Your task to perform on an android device: Show me recent news Image 0: 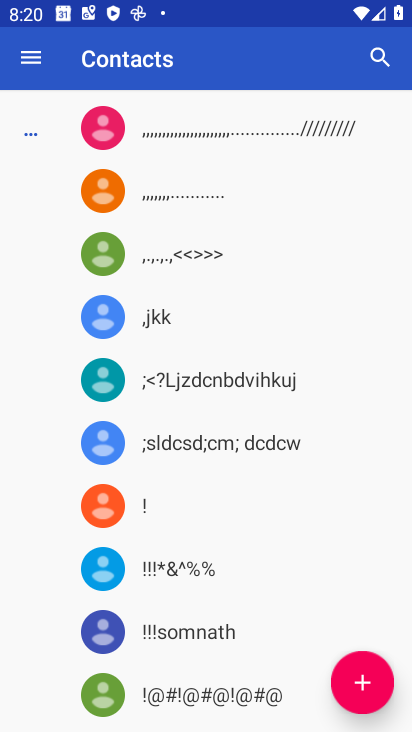
Step 0: press home button
Your task to perform on an android device: Show me recent news Image 1: 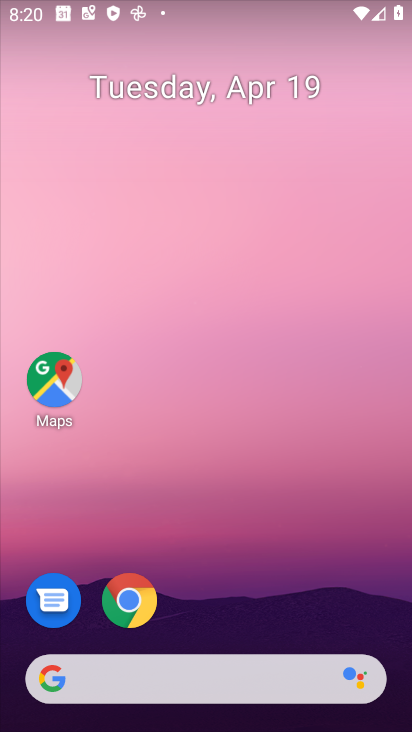
Step 1: drag from (285, 611) to (218, 56)
Your task to perform on an android device: Show me recent news Image 2: 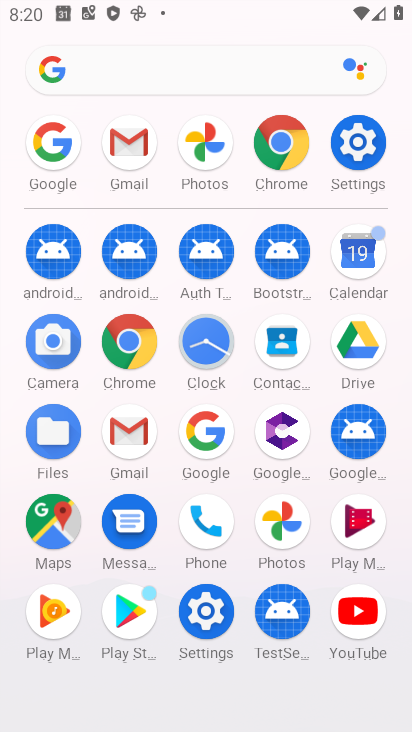
Step 2: click (125, 347)
Your task to perform on an android device: Show me recent news Image 3: 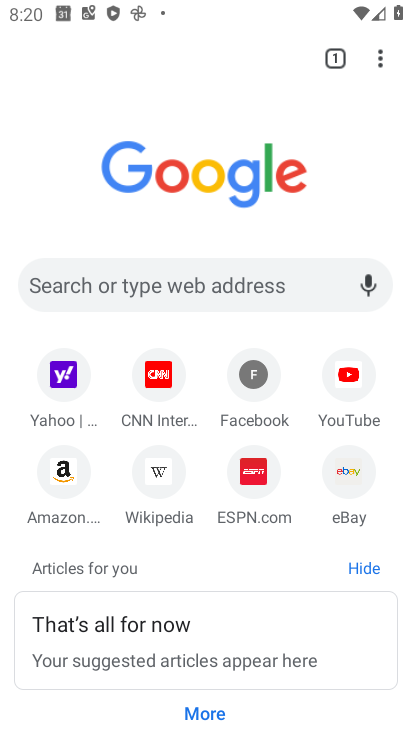
Step 3: click (184, 701)
Your task to perform on an android device: Show me recent news Image 4: 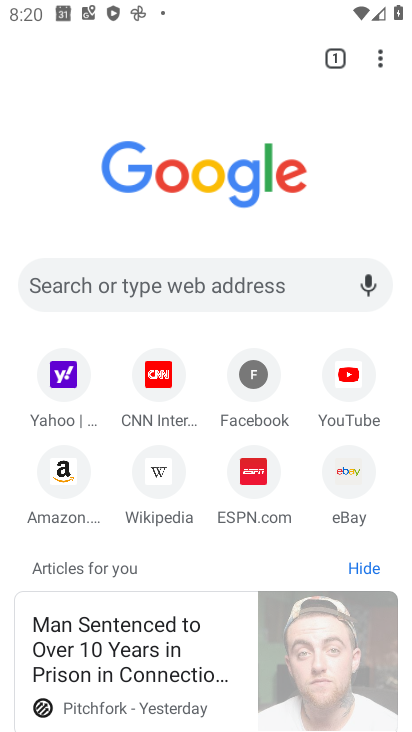
Step 4: drag from (145, 655) to (205, 232)
Your task to perform on an android device: Show me recent news Image 5: 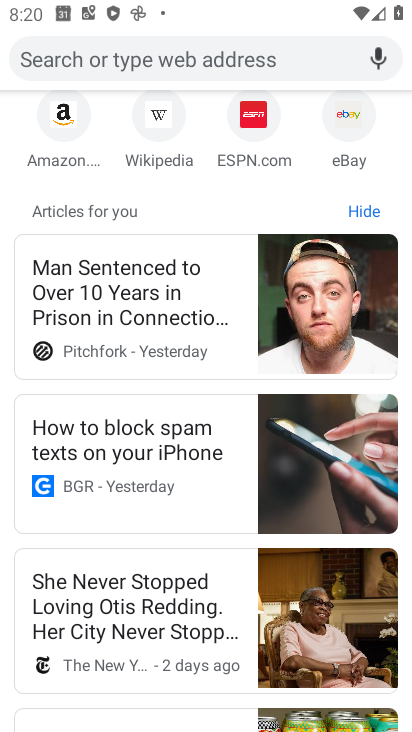
Step 5: click (173, 292)
Your task to perform on an android device: Show me recent news Image 6: 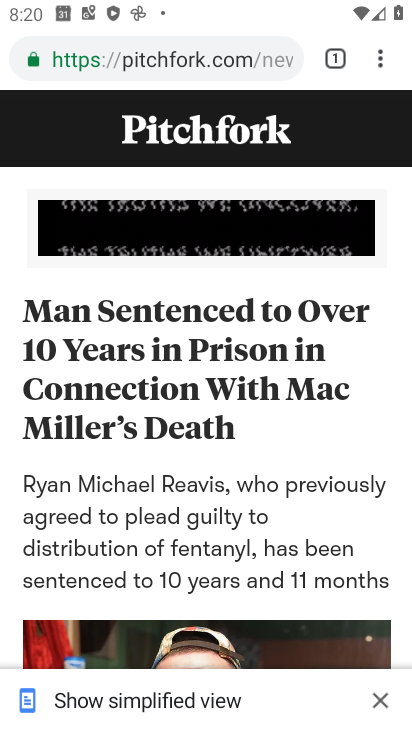
Step 6: task complete